Your task to perform on an android device: open app "Skype" (install if not already installed), go to login, and select forgot password Image 0: 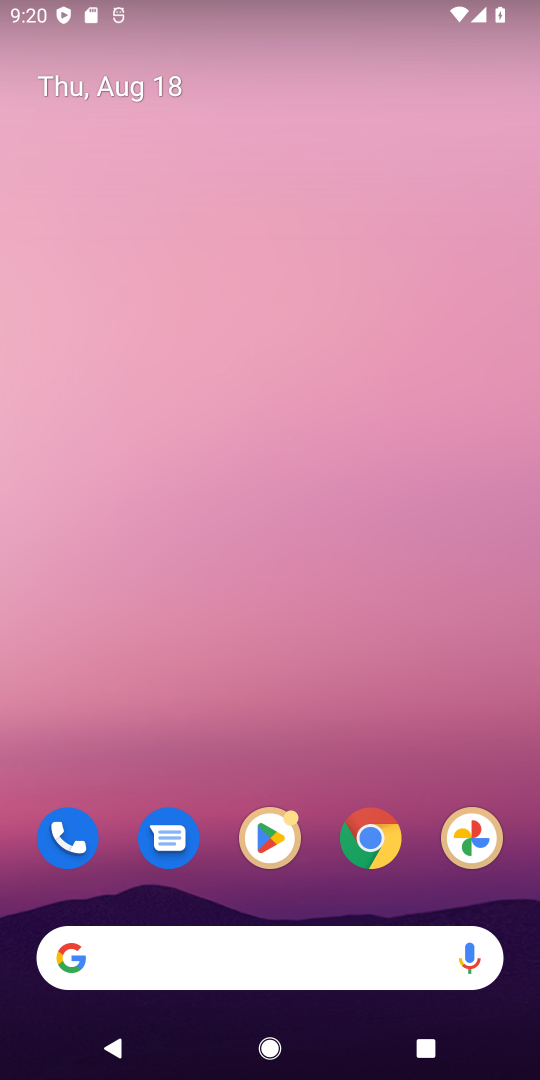
Step 0: drag from (329, 904) to (382, 112)
Your task to perform on an android device: open app "Skype" (install if not already installed), go to login, and select forgot password Image 1: 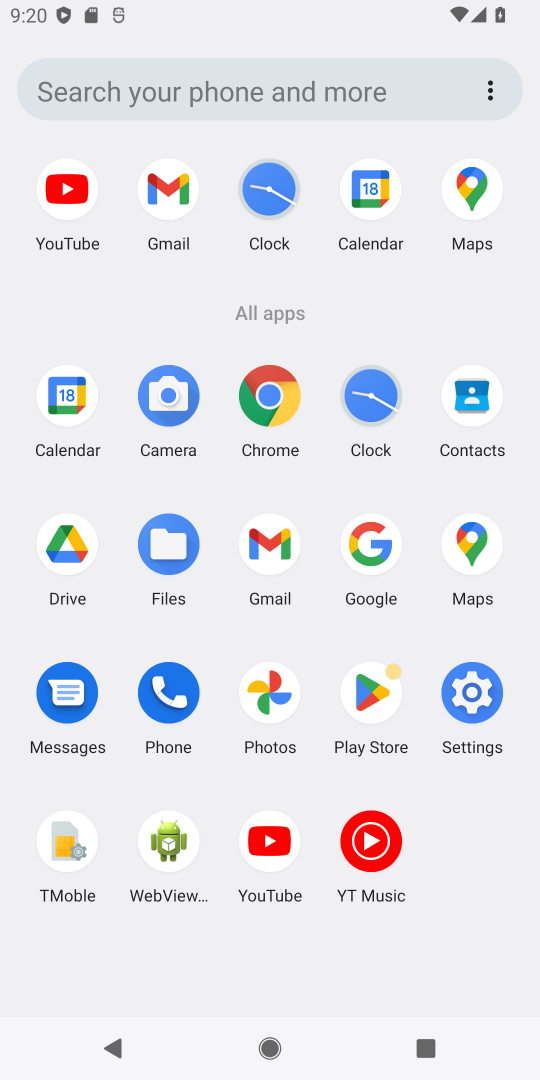
Step 1: click (366, 709)
Your task to perform on an android device: open app "Skype" (install if not already installed), go to login, and select forgot password Image 2: 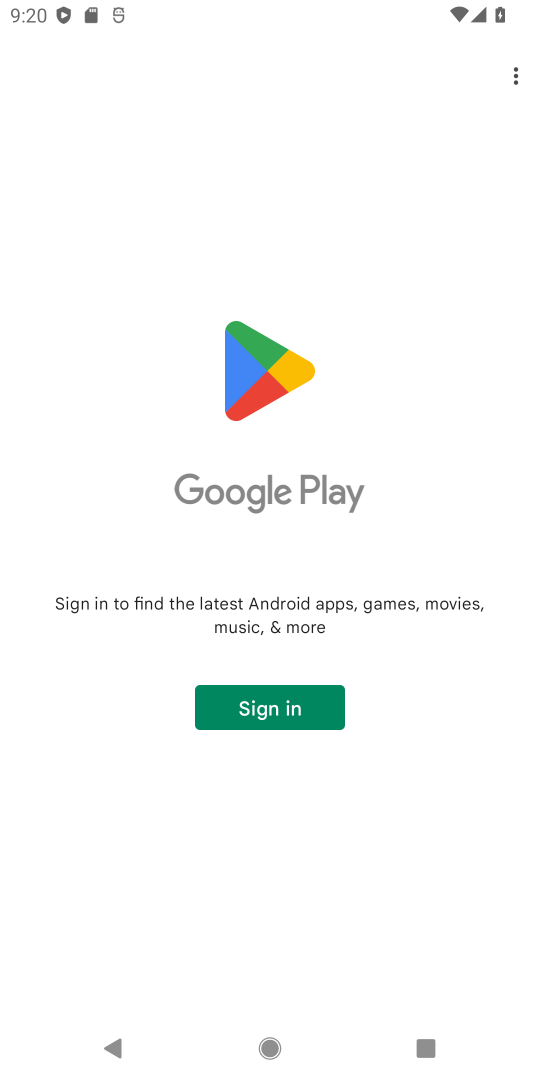
Step 2: click (333, 709)
Your task to perform on an android device: open app "Skype" (install if not already installed), go to login, and select forgot password Image 3: 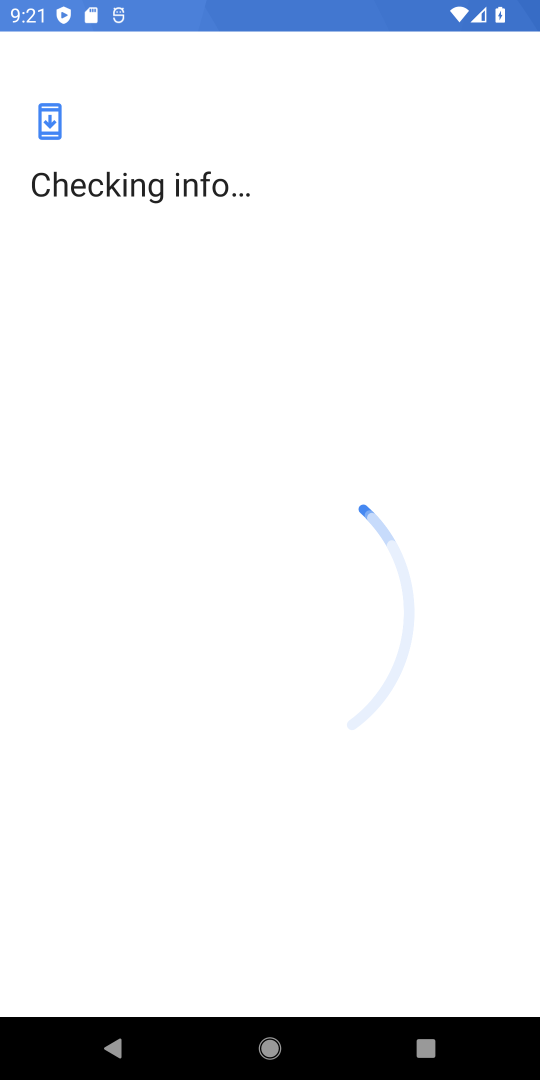
Step 3: task complete